Your task to perform on an android device: make emails show in primary in the gmail app Image 0: 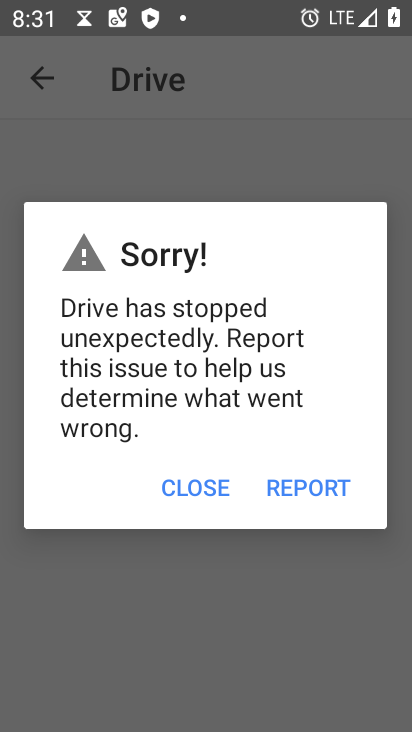
Step 0: click (161, 491)
Your task to perform on an android device: make emails show in primary in the gmail app Image 1: 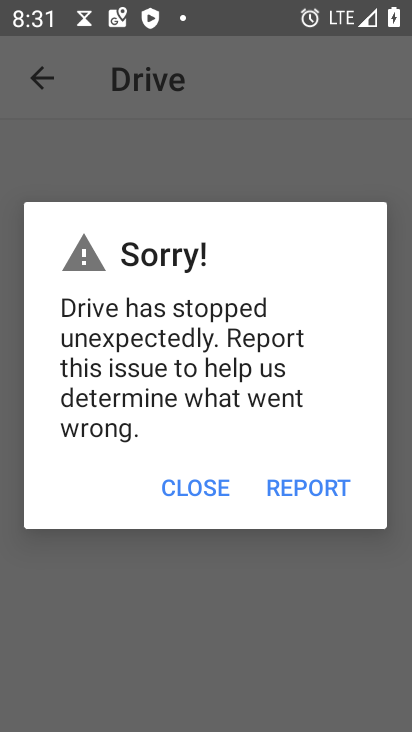
Step 1: click (162, 489)
Your task to perform on an android device: make emails show in primary in the gmail app Image 2: 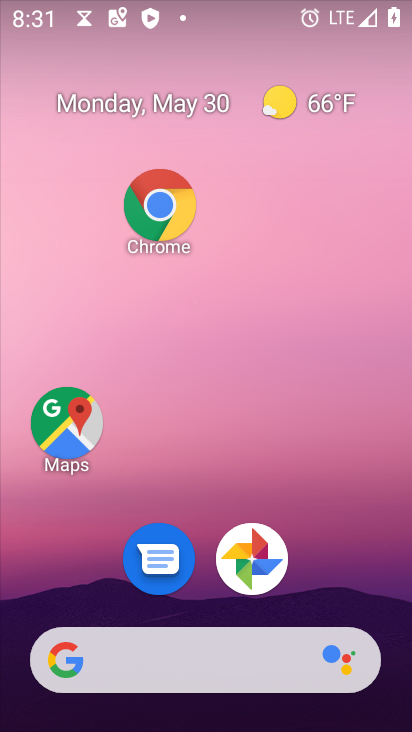
Step 2: drag from (268, 685) to (166, 158)
Your task to perform on an android device: make emails show in primary in the gmail app Image 3: 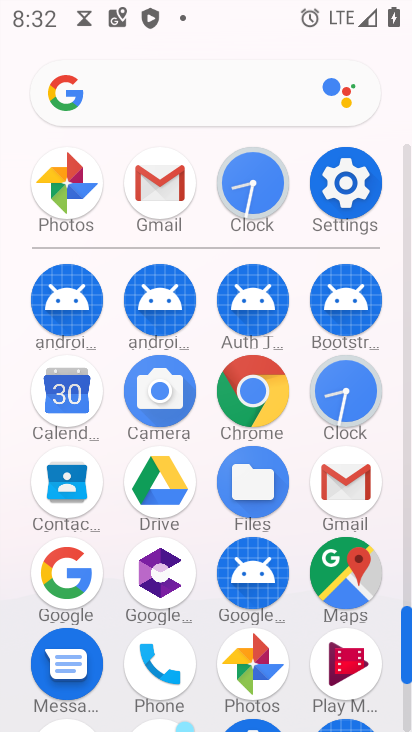
Step 3: click (345, 483)
Your task to perform on an android device: make emails show in primary in the gmail app Image 4: 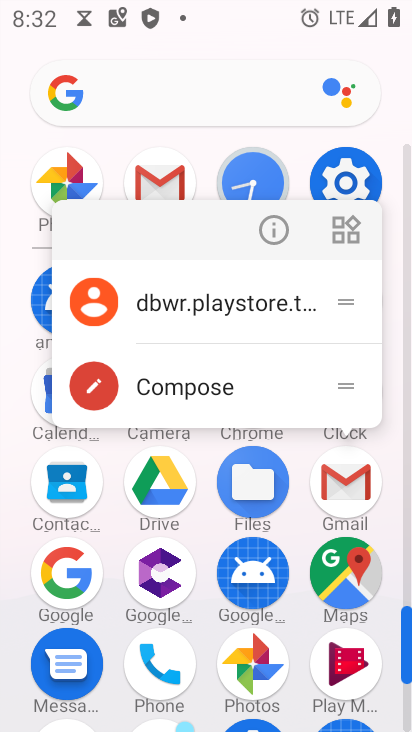
Step 4: click (339, 485)
Your task to perform on an android device: make emails show in primary in the gmail app Image 5: 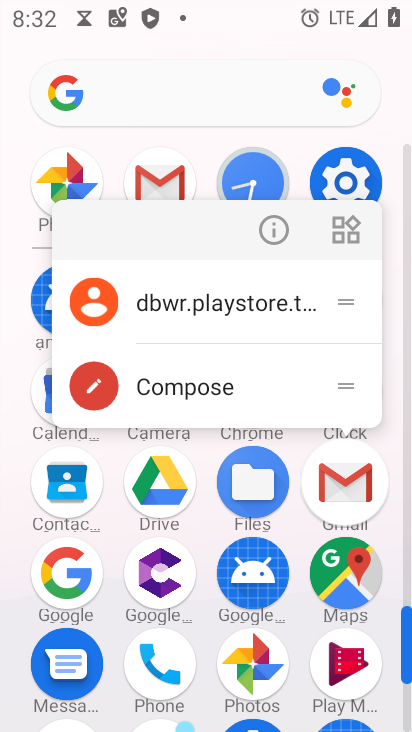
Step 5: click (345, 480)
Your task to perform on an android device: make emails show in primary in the gmail app Image 6: 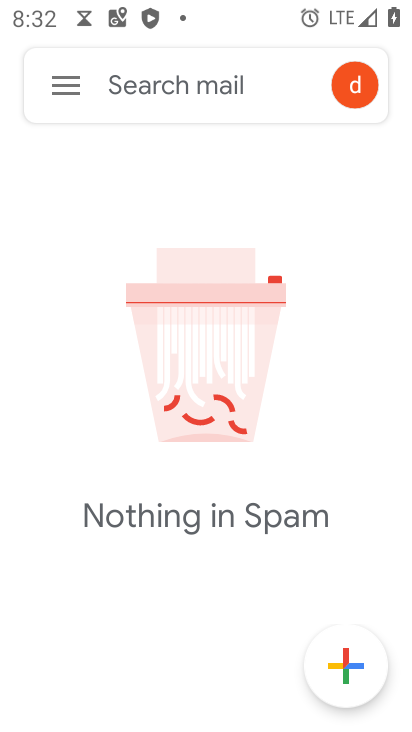
Step 6: click (60, 74)
Your task to perform on an android device: make emails show in primary in the gmail app Image 7: 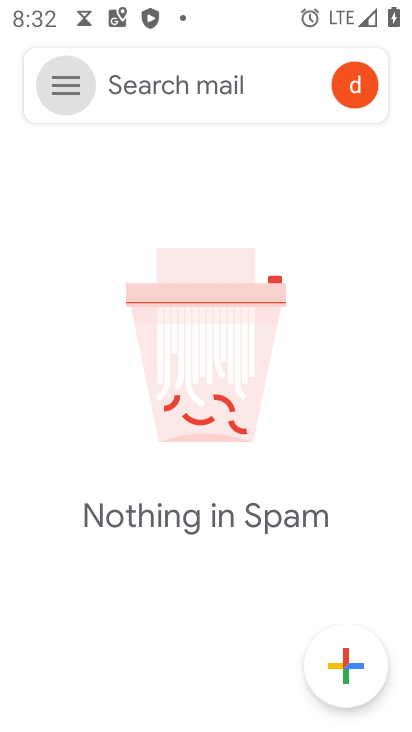
Step 7: click (63, 85)
Your task to perform on an android device: make emails show in primary in the gmail app Image 8: 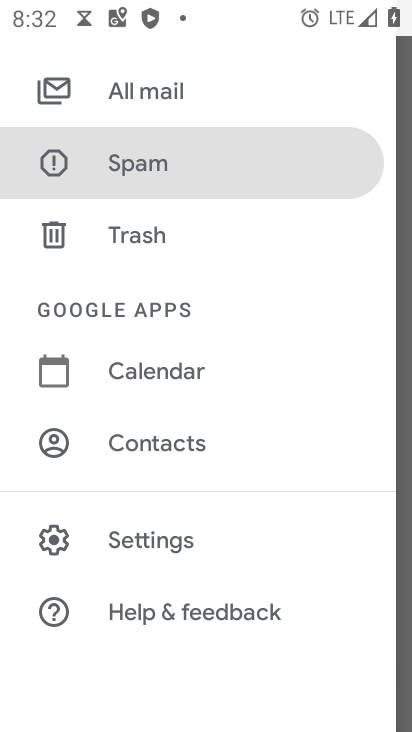
Step 8: click (149, 535)
Your task to perform on an android device: make emails show in primary in the gmail app Image 9: 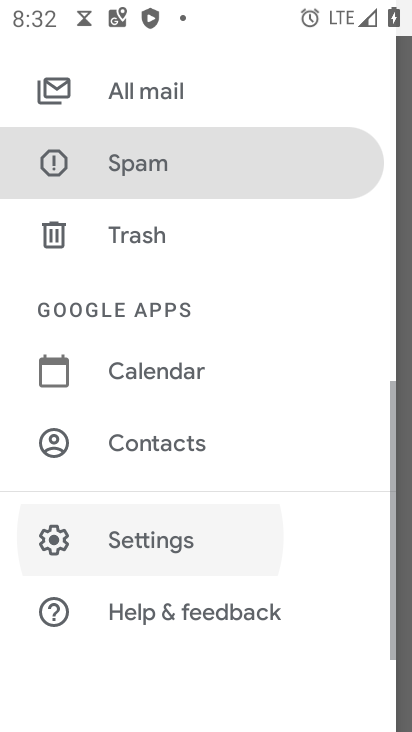
Step 9: click (151, 536)
Your task to perform on an android device: make emails show in primary in the gmail app Image 10: 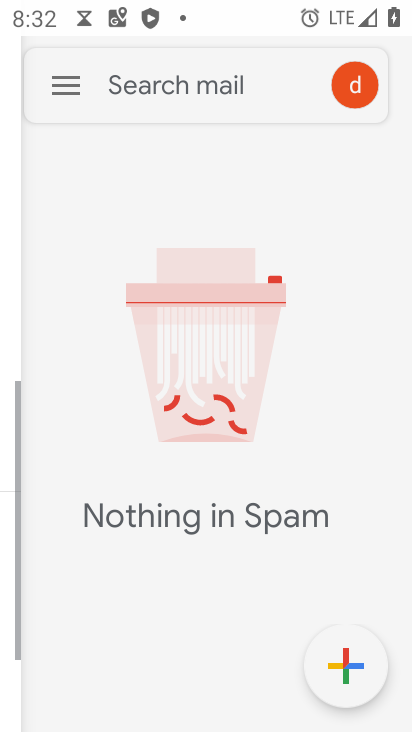
Step 10: click (153, 536)
Your task to perform on an android device: make emails show in primary in the gmail app Image 11: 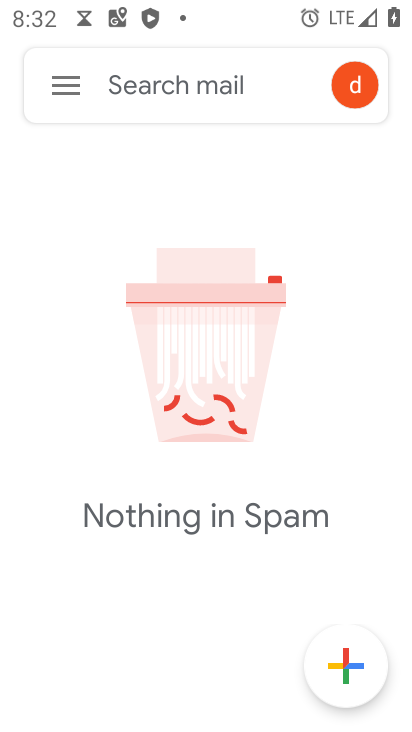
Step 11: click (144, 525)
Your task to perform on an android device: make emails show in primary in the gmail app Image 12: 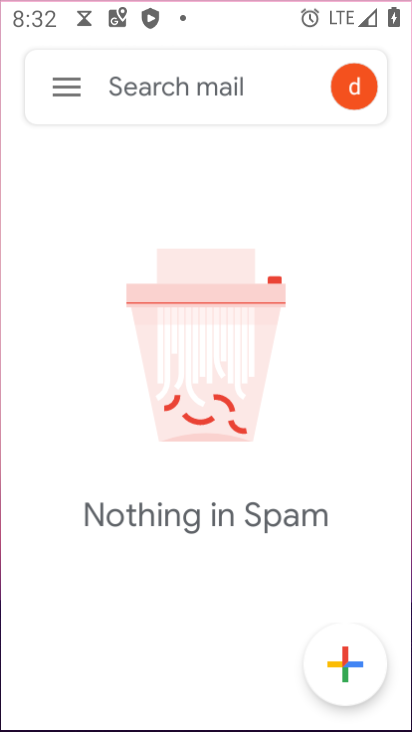
Step 12: click (141, 521)
Your task to perform on an android device: make emails show in primary in the gmail app Image 13: 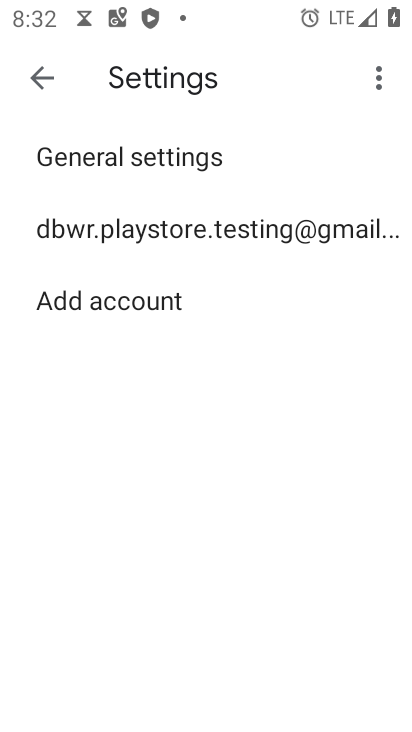
Step 13: drag from (119, 234) to (242, 258)
Your task to perform on an android device: make emails show in primary in the gmail app Image 14: 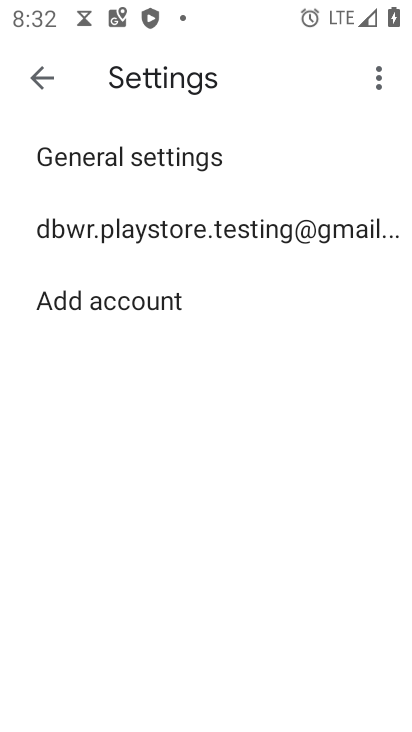
Step 14: click (226, 239)
Your task to perform on an android device: make emails show in primary in the gmail app Image 15: 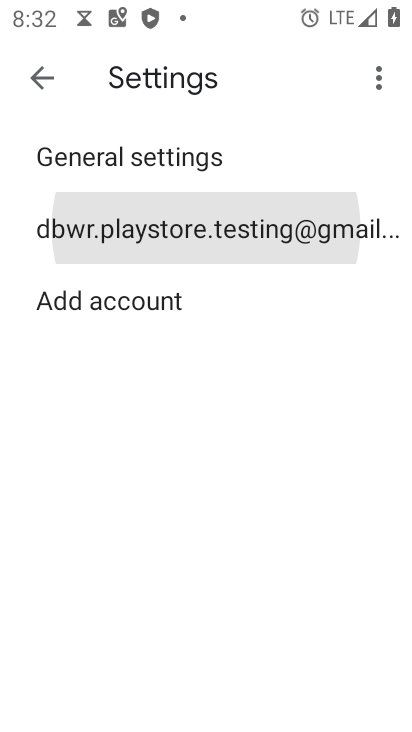
Step 15: click (226, 239)
Your task to perform on an android device: make emails show in primary in the gmail app Image 16: 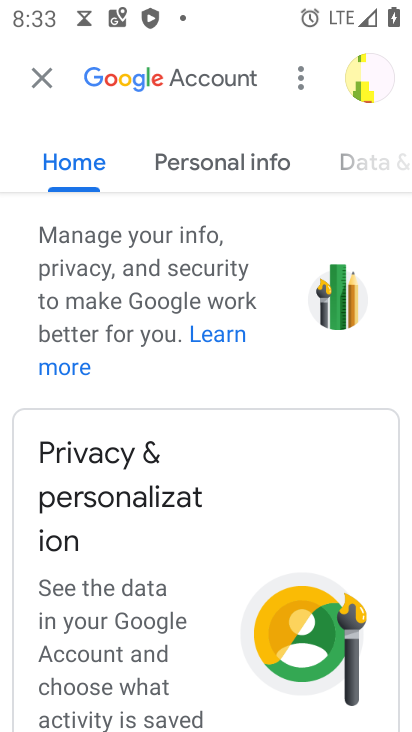
Step 16: click (37, 74)
Your task to perform on an android device: make emails show in primary in the gmail app Image 17: 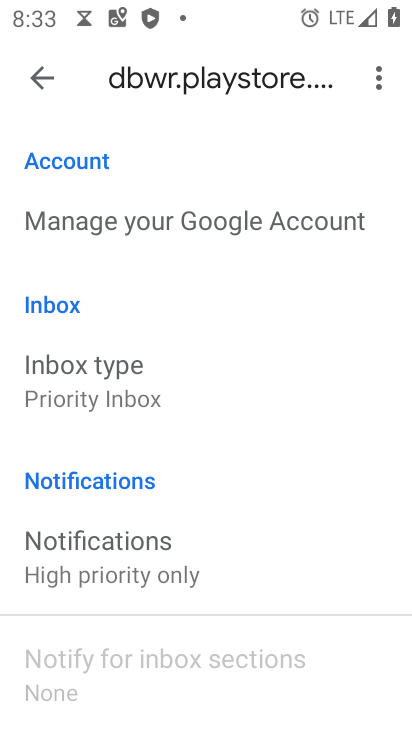
Step 17: click (96, 550)
Your task to perform on an android device: make emails show in primary in the gmail app Image 18: 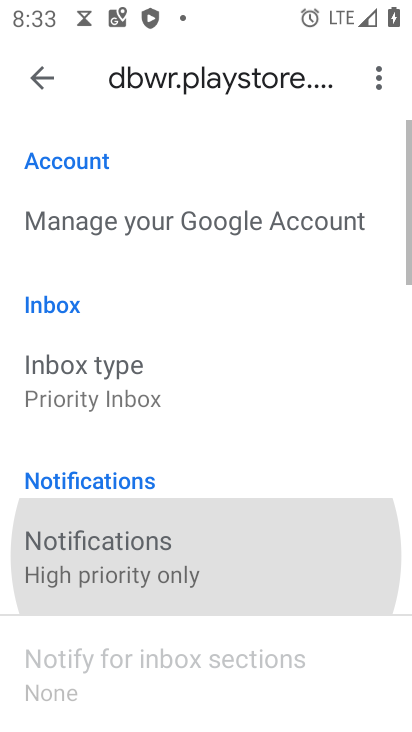
Step 18: click (95, 552)
Your task to perform on an android device: make emails show in primary in the gmail app Image 19: 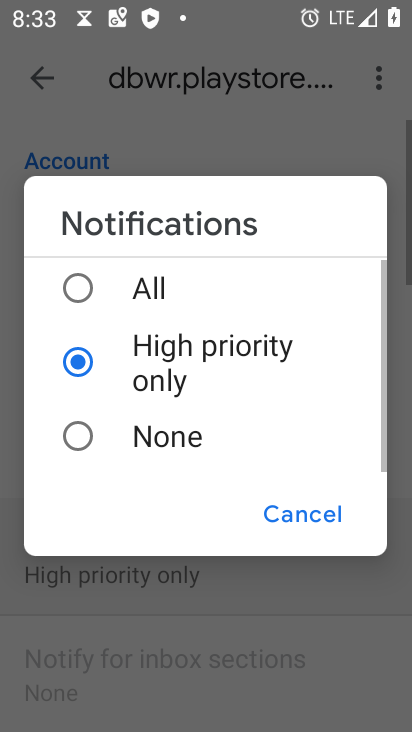
Step 19: click (97, 554)
Your task to perform on an android device: make emails show in primary in the gmail app Image 20: 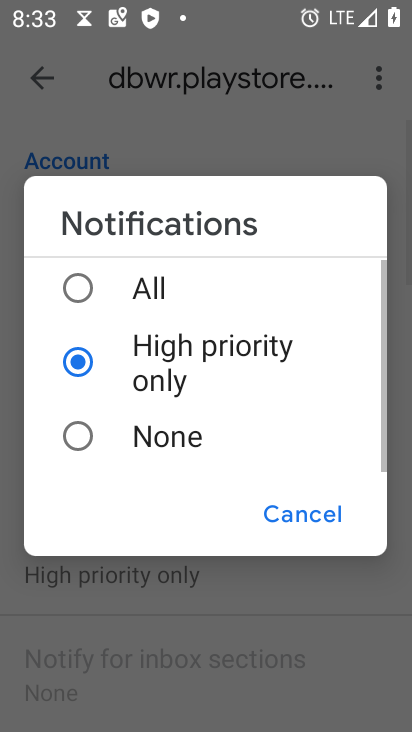
Step 20: click (71, 280)
Your task to perform on an android device: make emails show in primary in the gmail app Image 21: 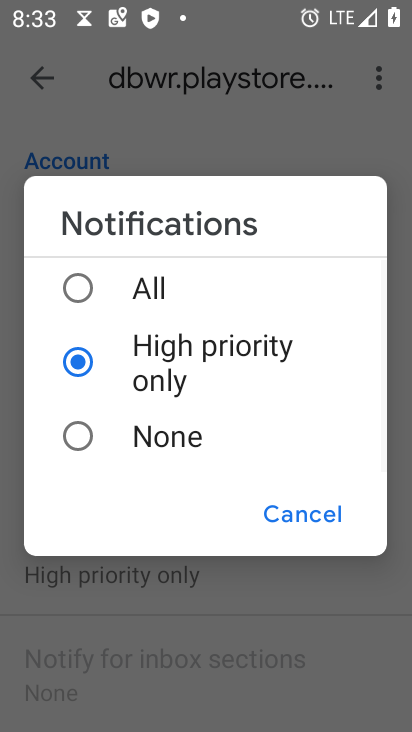
Step 21: click (75, 282)
Your task to perform on an android device: make emails show in primary in the gmail app Image 22: 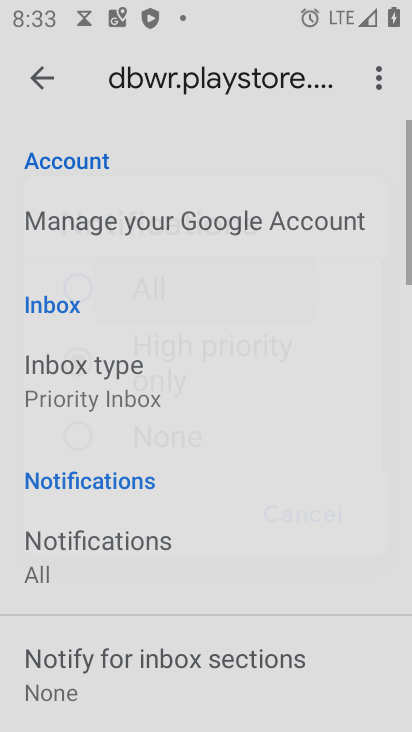
Step 22: click (75, 282)
Your task to perform on an android device: make emails show in primary in the gmail app Image 23: 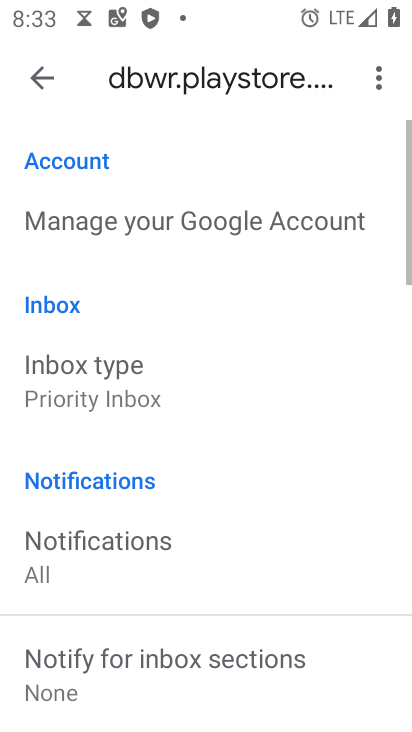
Step 23: click (73, 283)
Your task to perform on an android device: make emails show in primary in the gmail app Image 24: 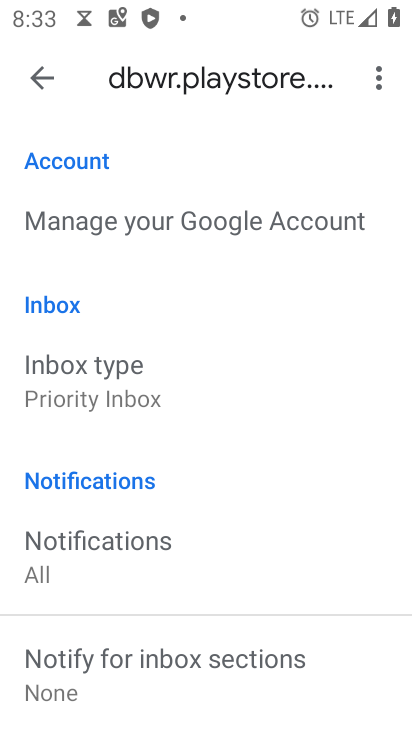
Step 24: task complete